Your task to perform on an android device: turn notification dots on Image 0: 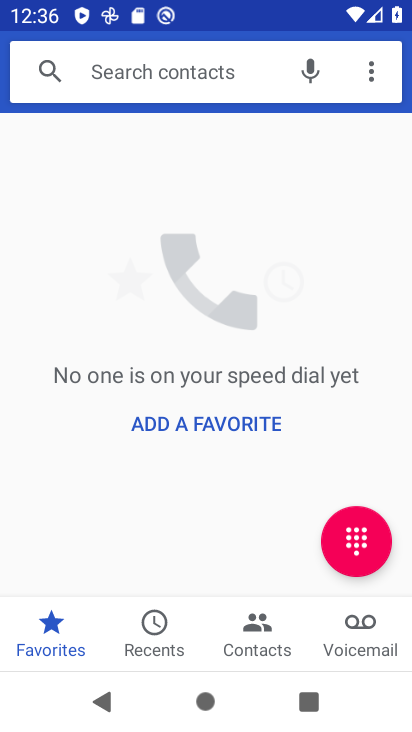
Step 0: press home button
Your task to perform on an android device: turn notification dots on Image 1: 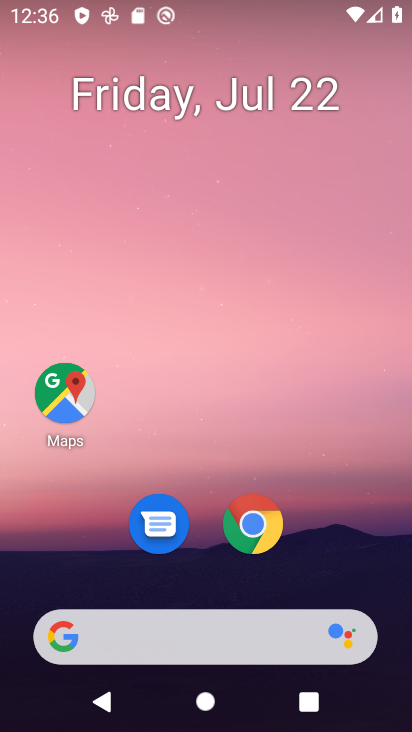
Step 1: drag from (202, 641) to (334, 60)
Your task to perform on an android device: turn notification dots on Image 2: 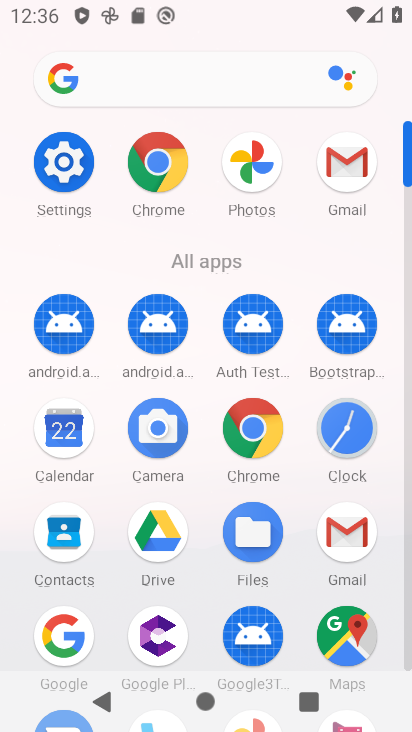
Step 2: click (60, 168)
Your task to perform on an android device: turn notification dots on Image 3: 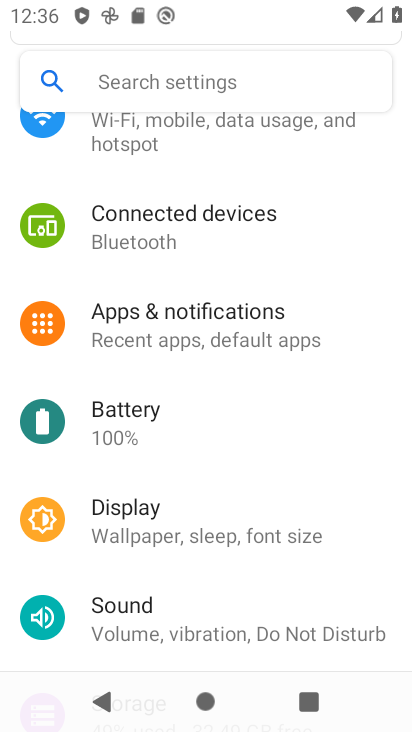
Step 3: drag from (329, 184) to (266, 628)
Your task to perform on an android device: turn notification dots on Image 4: 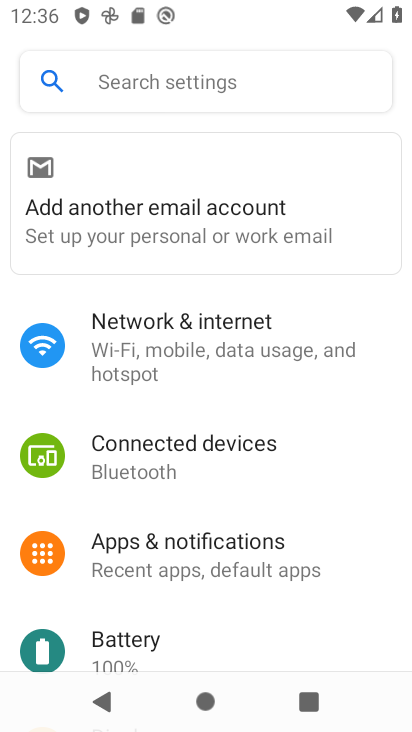
Step 4: click (227, 552)
Your task to perform on an android device: turn notification dots on Image 5: 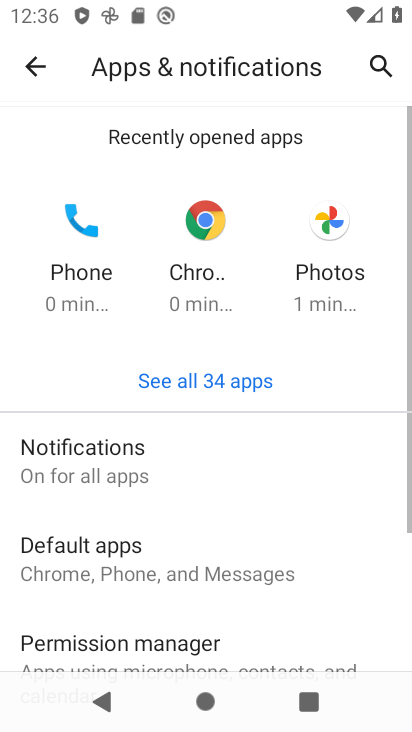
Step 5: click (113, 457)
Your task to perform on an android device: turn notification dots on Image 6: 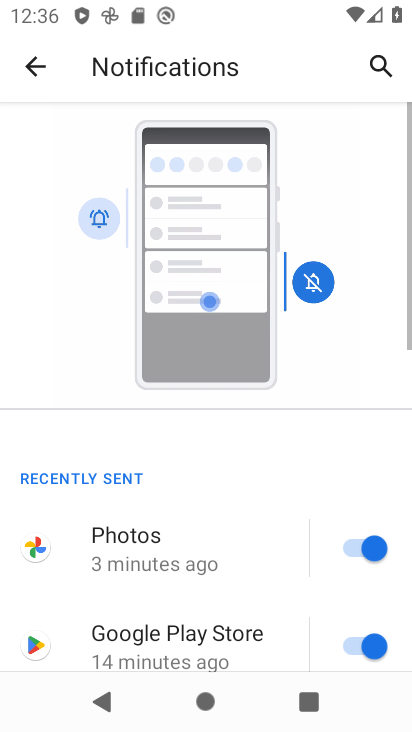
Step 6: drag from (227, 650) to (311, 90)
Your task to perform on an android device: turn notification dots on Image 7: 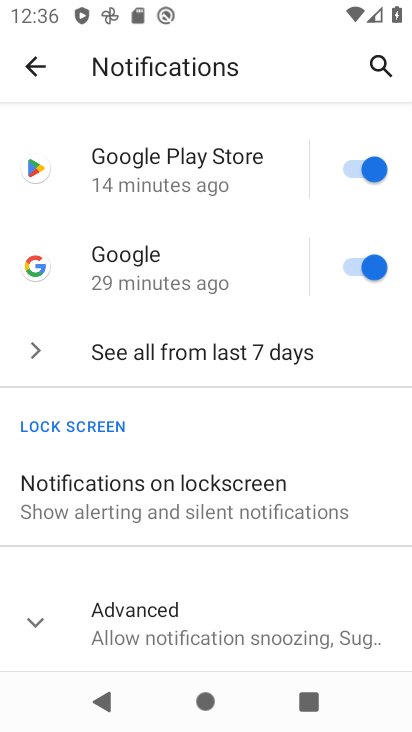
Step 7: click (165, 596)
Your task to perform on an android device: turn notification dots on Image 8: 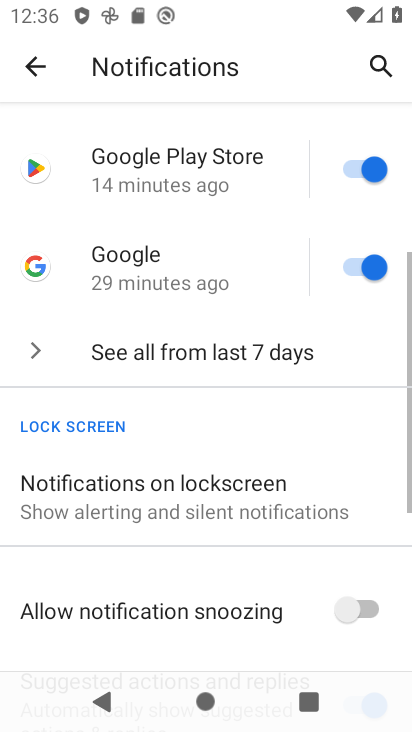
Step 8: task complete